Your task to perform on an android device: turn off improve location accuracy Image 0: 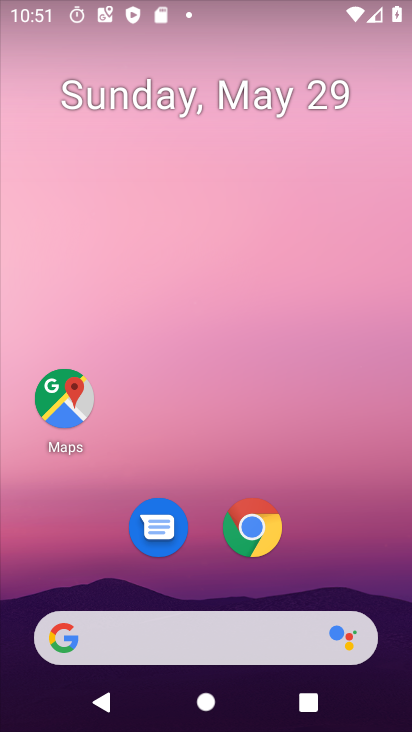
Step 0: drag from (359, 520) to (328, 58)
Your task to perform on an android device: turn off improve location accuracy Image 1: 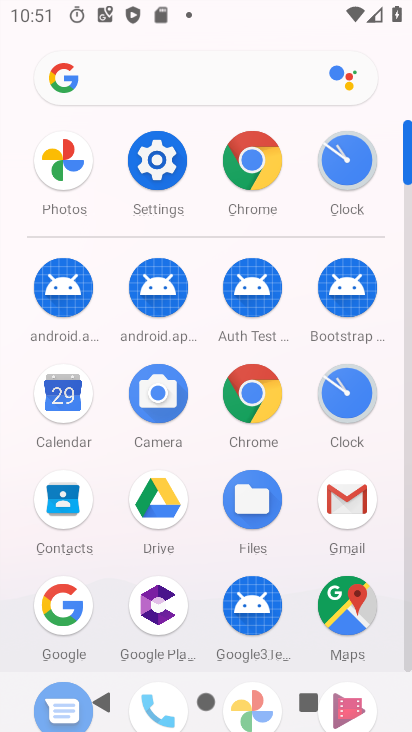
Step 1: click (156, 166)
Your task to perform on an android device: turn off improve location accuracy Image 2: 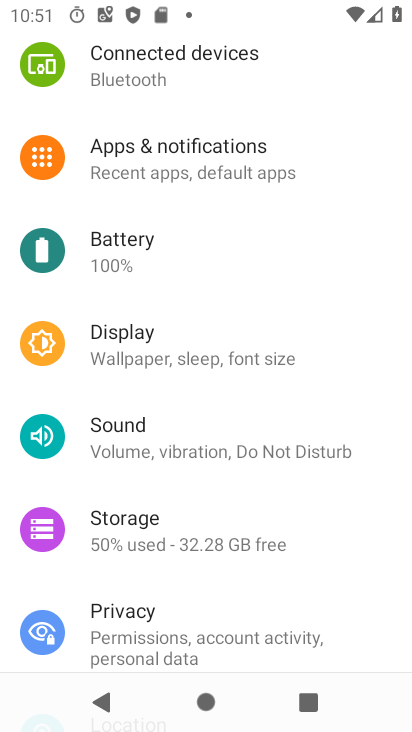
Step 2: drag from (268, 545) to (280, 223)
Your task to perform on an android device: turn off improve location accuracy Image 3: 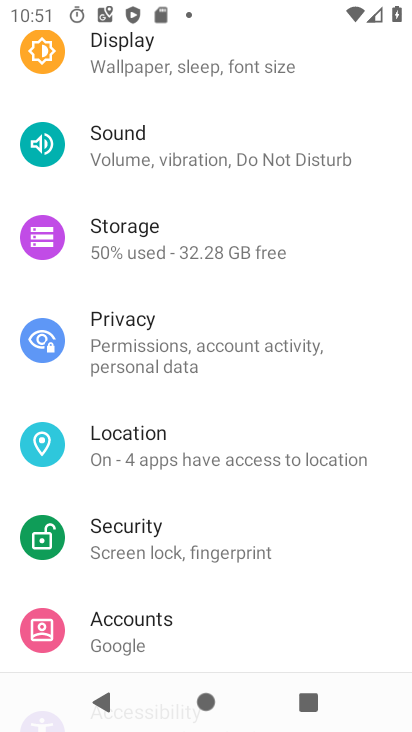
Step 3: drag from (279, 230) to (307, 585)
Your task to perform on an android device: turn off improve location accuracy Image 4: 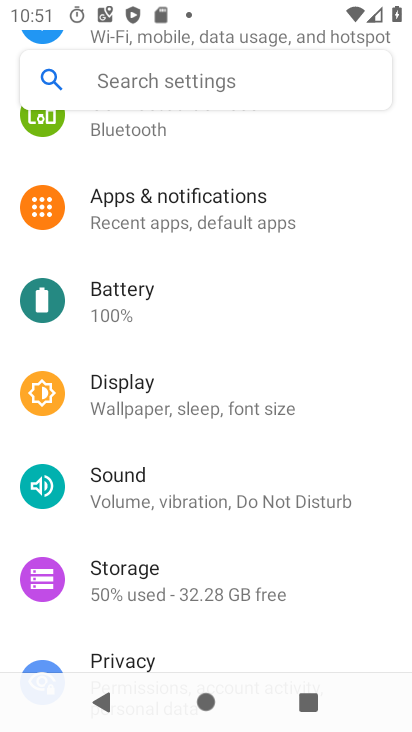
Step 4: drag from (168, 274) to (193, 126)
Your task to perform on an android device: turn off improve location accuracy Image 5: 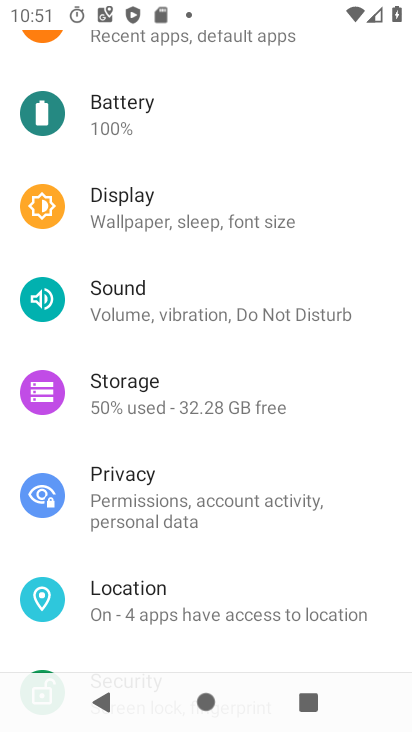
Step 5: click (171, 588)
Your task to perform on an android device: turn off improve location accuracy Image 6: 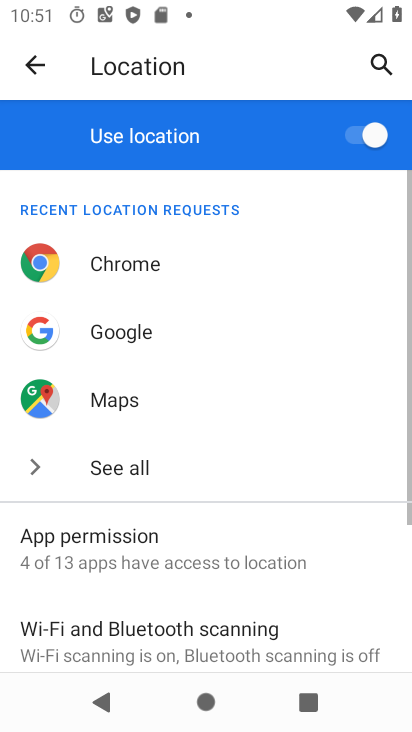
Step 6: click (150, 536)
Your task to perform on an android device: turn off improve location accuracy Image 7: 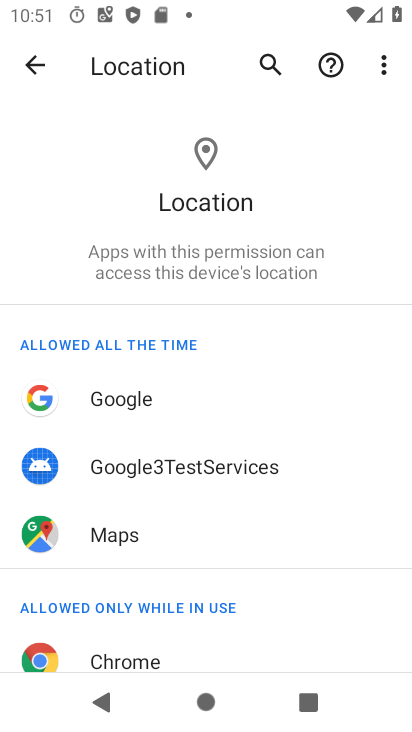
Step 7: drag from (248, 483) to (232, 61)
Your task to perform on an android device: turn off improve location accuracy Image 8: 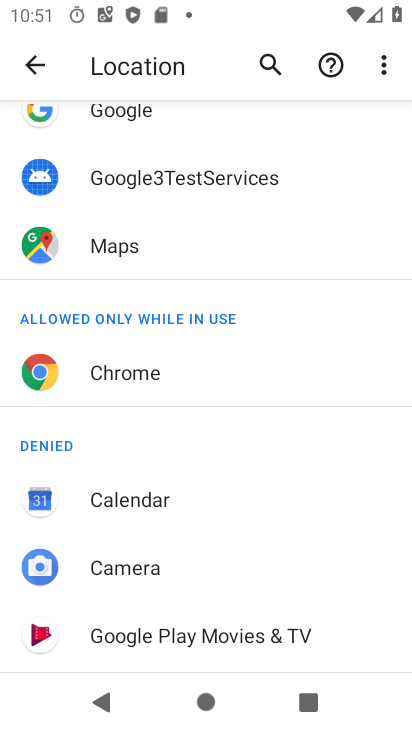
Step 8: drag from (221, 526) to (224, 144)
Your task to perform on an android device: turn off improve location accuracy Image 9: 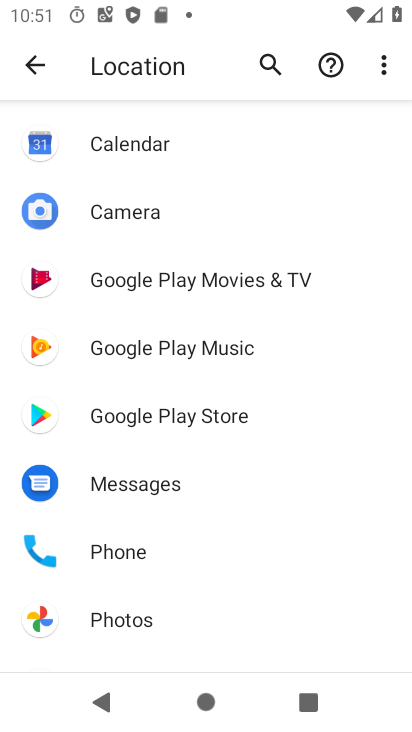
Step 9: click (42, 72)
Your task to perform on an android device: turn off improve location accuracy Image 10: 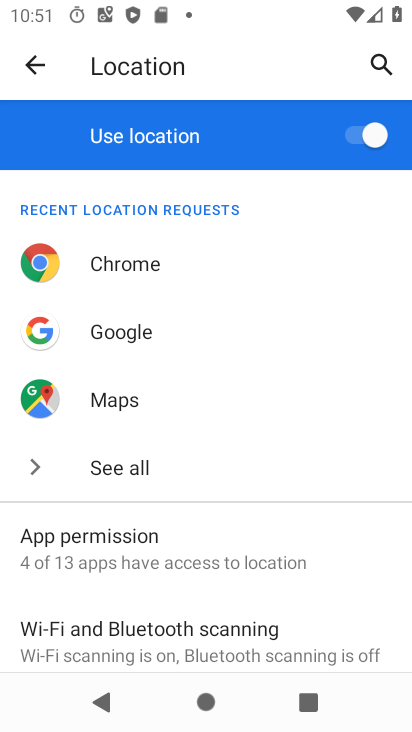
Step 10: drag from (225, 469) to (229, 97)
Your task to perform on an android device: turn off improve location accuracy Image 11: 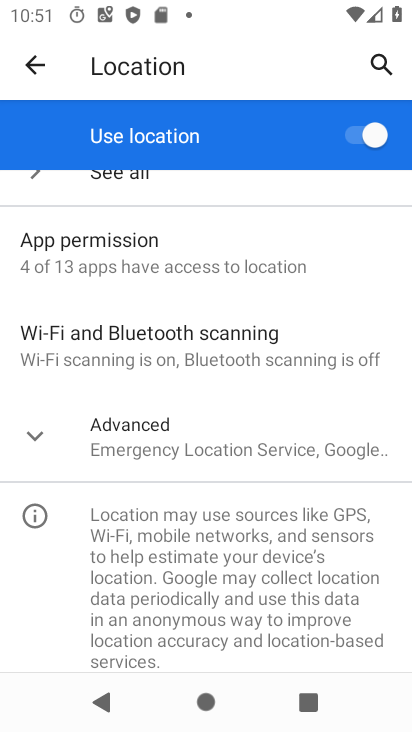
Step 11: click (189, 473)
Your task to perform on an android device: turn off improve location accuracy Image 12: 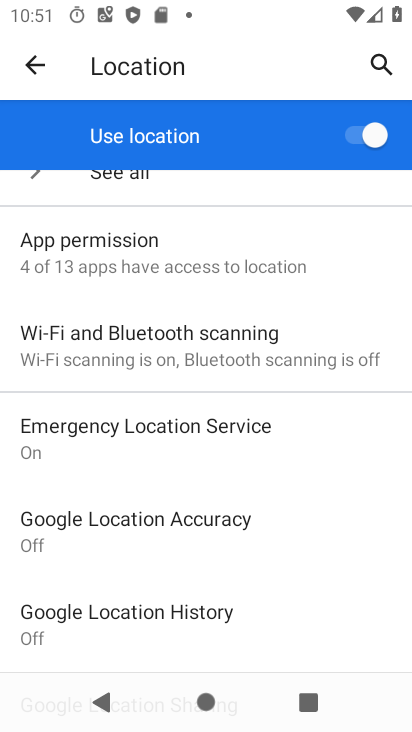
Step 12: click (240, 528)
Your task to perform on an android device: turn off improve location accuracy Image 13: 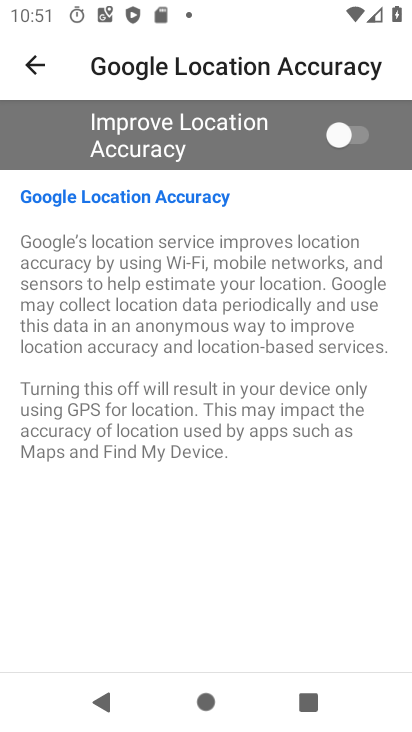
Step 13: task complete